Your task to perform on an android device: see sites visited before in the chrome app Image 0: 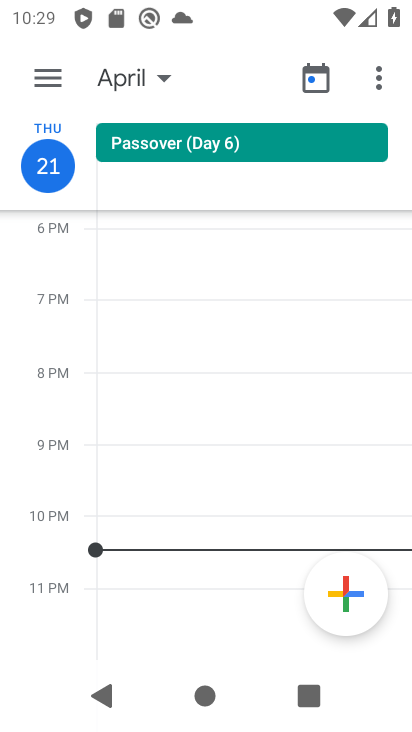
Step 0: press home button
Your task to perform on an android device: see sites visited before in the chrome app Image 1: 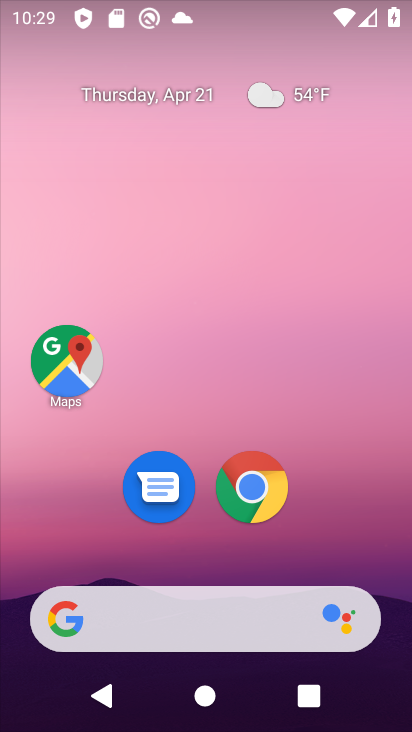
Step 1: drag from (323, 476) to (342, 128)
Your task to perform on an android device: see sites visited before in the chrome app Image 2: 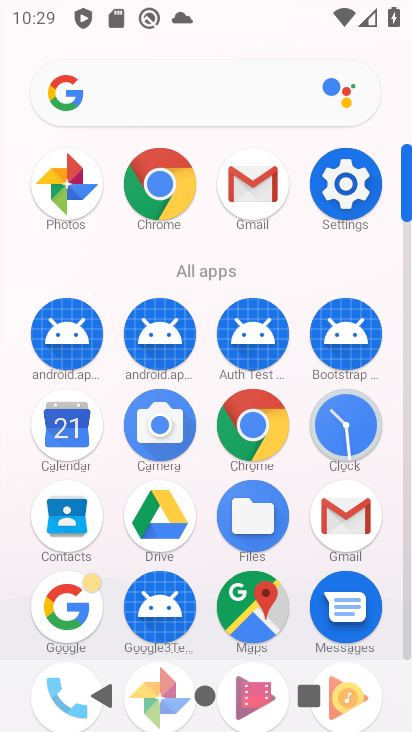
Step 2: click (161, 192)
Your task to perform on an android device: see sites visited before in the chrome app Image 3: 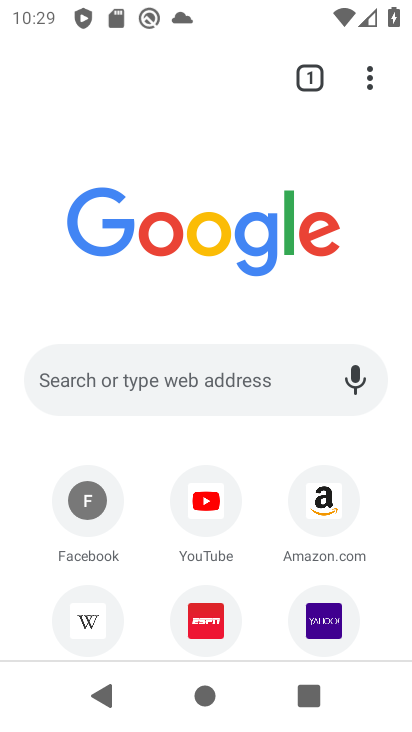
Step 3: task complete